Your task to perform on an android device: toggle improve location accuracy Image 0: 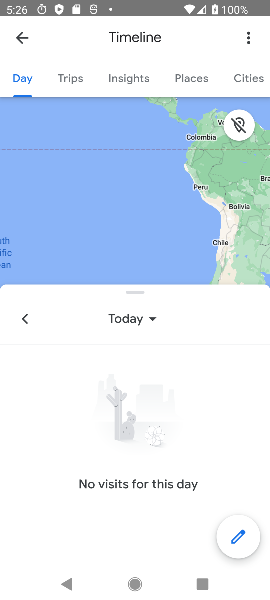
Step 0: click (15, 39)
Your task to perform on an android device: toggle improve location accuracy Image 1: 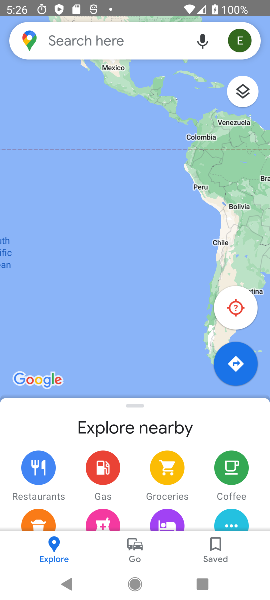
Step 1: press back button
Your task to perform on an android device: toggle improve location accuracy Image 2: 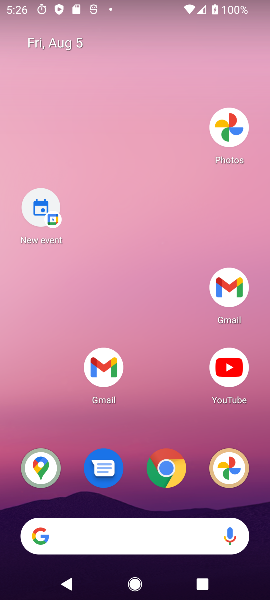
Step 2: drag from (169, 539) to (157, 130)
Your task to perform on an android device: toggle improve location accuracy Image 3: 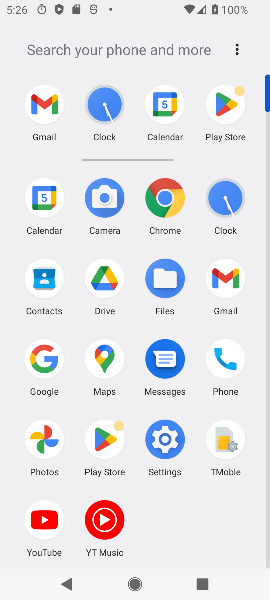
Step 3: drag from (133, 523) to (120, 123)
Your task to perform on an android device: toggle improve location accuracy Image 4: 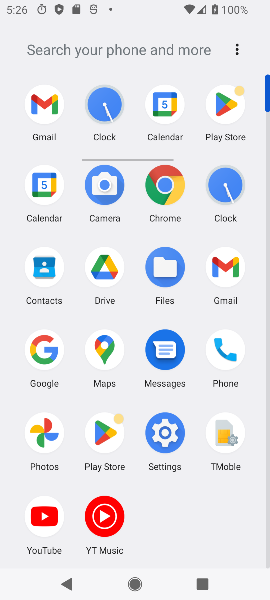
Step 4: click (73, 77)
Your task to perform on an android device: toggle improve location accuracy Image 5: 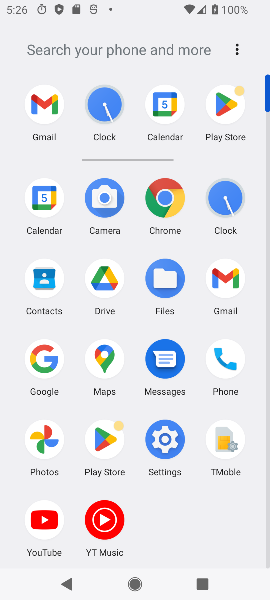
Step 5: click (155, 436)
Your task to perform on an android device: toggle improve location accuracy Image 6: 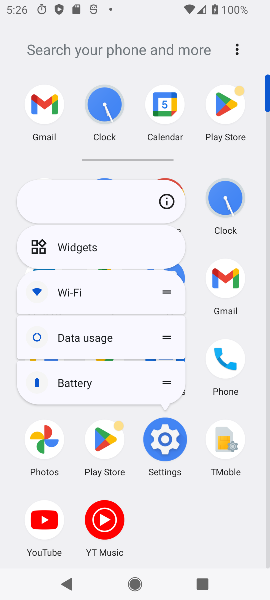
Step 6: click (155, 436)
Your task to perform on an android device: toggle improve location accuracy Image 7: 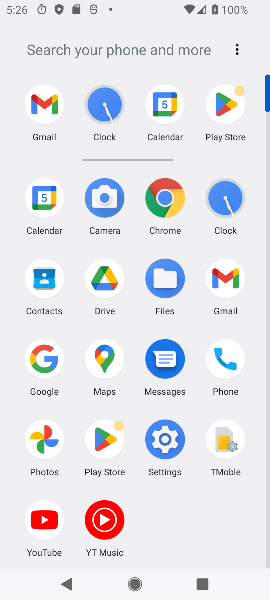
Step 7: click (155, 436)
Your task to perform on an android device: toggle improve location accuracy Image 8: 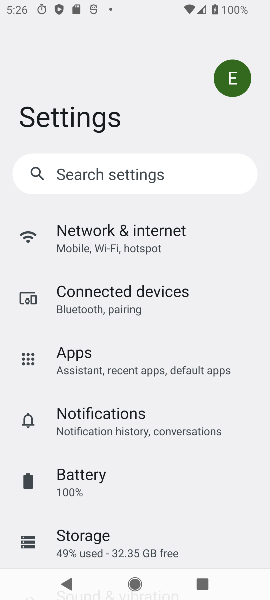
Step 8: click (156, 438)
Your task to perform on an android device: toggle improve location accuracy Image 9: 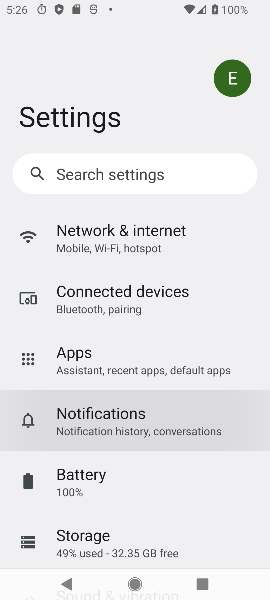
Step 9: click (167, 448)
Your task to perform on an android device: toggle improve location accuracy Image 10: 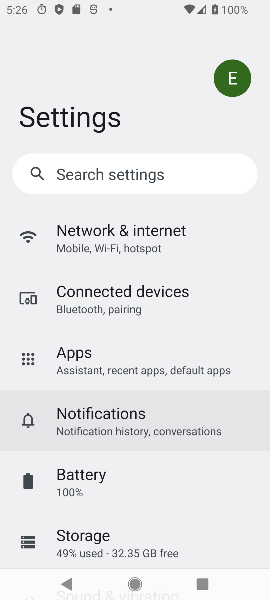
Step 10: click (167, 448)
Your task to perform on an android device: toggle improve location accuracy Image 11: 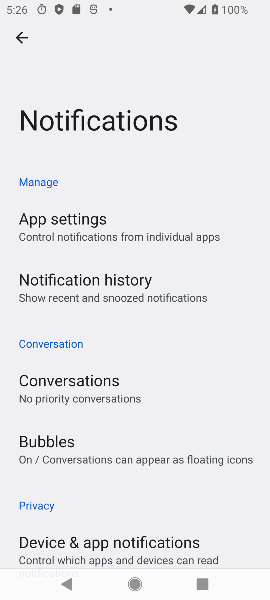
Step 11: click (167, 448)
Your task to perform on an android device: toggle improve location accuracy Image 12: 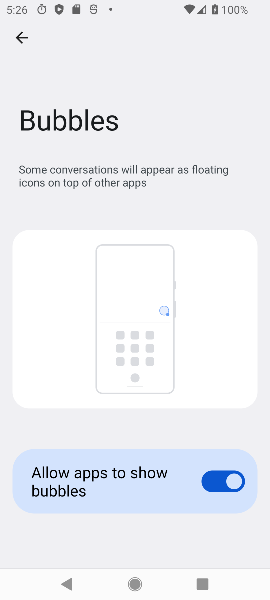
Step 12: drag from (107, 469) to (69, 242)
Your task to perform on an android device: toggle improve location accuracy Image 13: 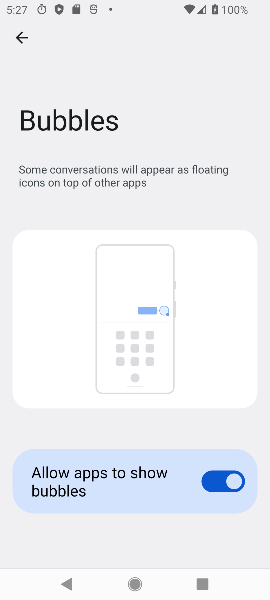
Step 13: click (21, 34)
Your task to perform on an android device: toggle improve location accuracy Image 14: 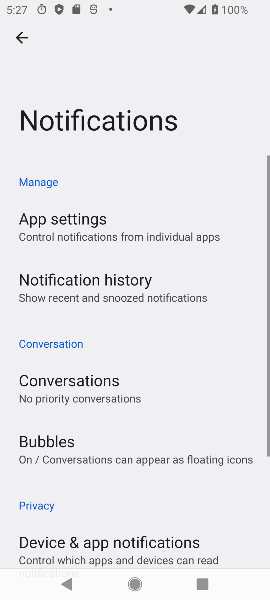
Step 14: drag from (97, 444) to (133, 248)
Your task to perform on an android device: toggle improve location accuracy Image 15: 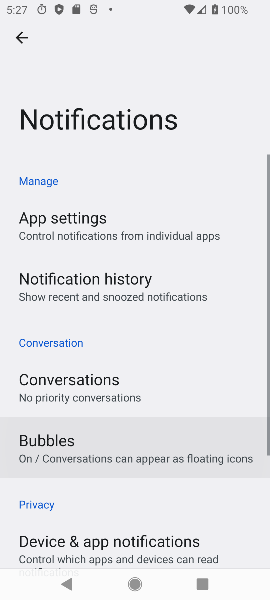
Step 15: drag from (127, 423) to (127, 205)
Your task to perform on an android device: toggle improve location accuracy Image 16: 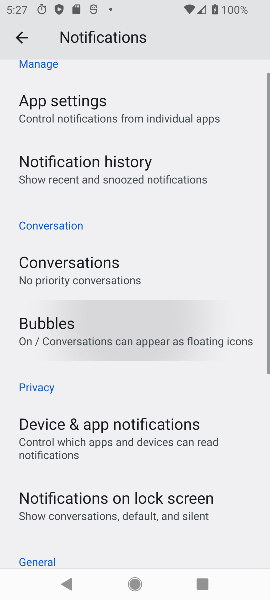
Step 16: drag from (158, 377) to (196, 136)
Your task to perform on an android device: toggle improve location accuracy Image 17: 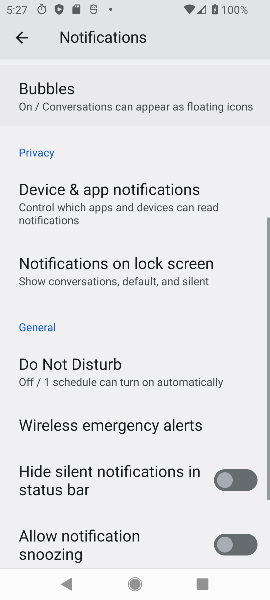
Step 17: drag from (153, 433) to (155, 207)
Your task to perform on an android device: toggle improve location accuracy Image 18: 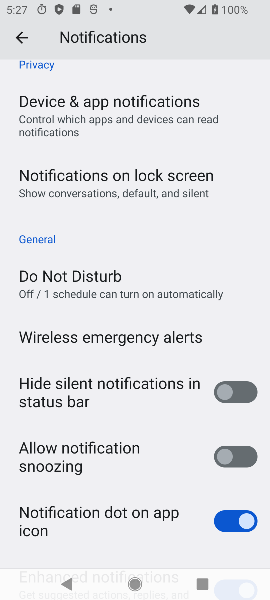
Step 18: drag from (123, 366) to (107, 172)
Your task to perform on an android device: toggle improve location accuracy Image 19: 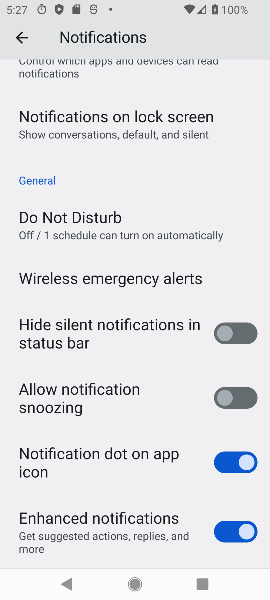
Step 19: drag from (132, 273) to (132, 192)
Your task to perform on an android device: toggle improve location accuracy Image 20: 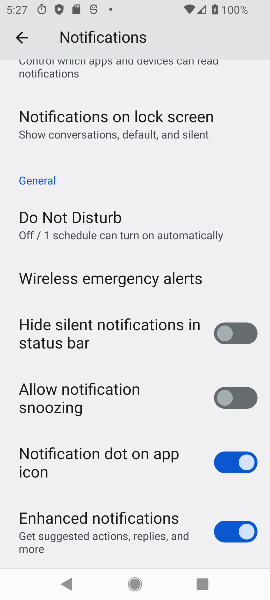
Step 20: drag from (146, 93) to (114, 157)
Your task to perform on an android device: toggle improve location accuracy Image 21: 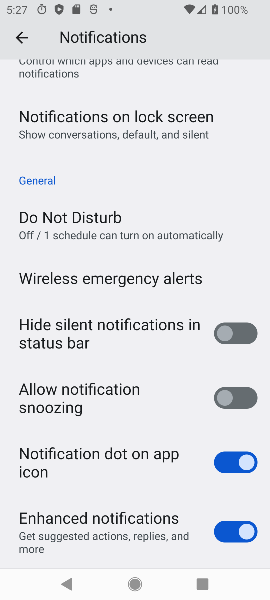
Step 21: drag from (63, 351) to (78, 431)
Your task to perform on an android device: toggle improve location accuracy Image 22: 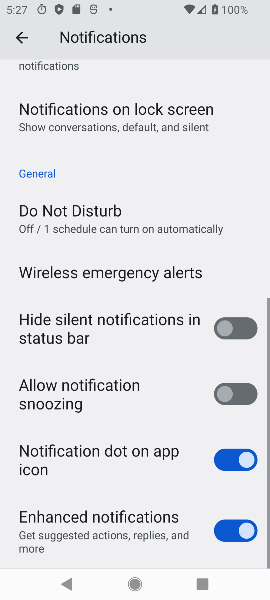
Step 22: drag from (107, 250) to (135, 479)
Your task to perform on an android device: toggle improve location accuracy Image 23: 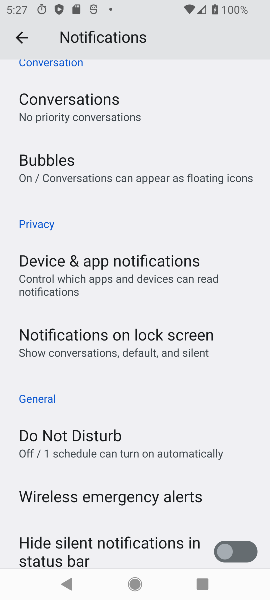
Step 23: drag from (132, 264) to (165, 508)
Your task to perform on an android device: toggle improve location accuracy Image 24: 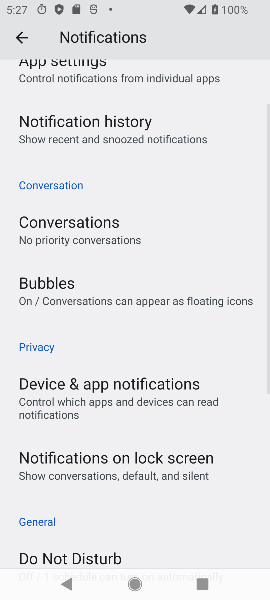
Step 24: drag from (128, 233) to (128, 479)
Your task to perform on an android device: toggle improve location accuracy Image 25: 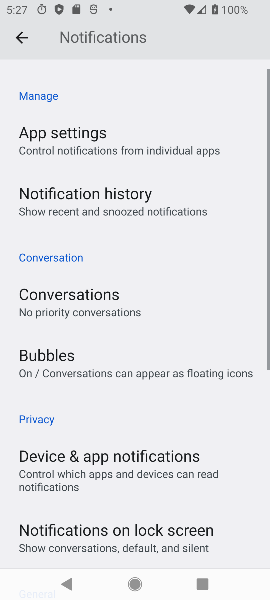
Step 25: drag from (99, 302) to (104, 360)
Your task to perform on an android device: toggle improve location accuracy Image 26: 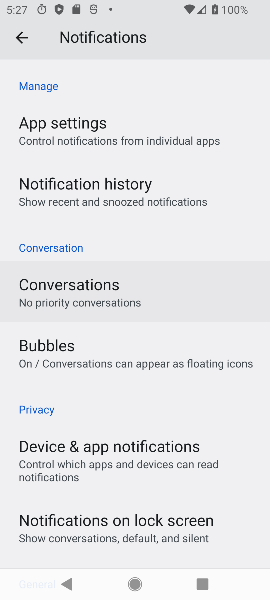
Step 26: drag from (114, 176) to (109, 426)
Your task to perform on an android device: toggle improve location accuracy Image 27: 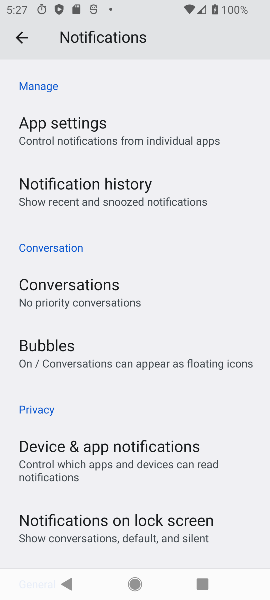
Step 27: click (18, 37)
Your task to perform on an android device: toggle improve location accuracy Image 28: 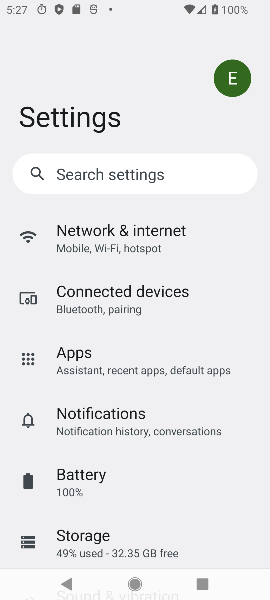
Step 28: drag from (122, 522) to (118, 231)
Your task to perform on an android device: toggle improve location accuracy Image 29: 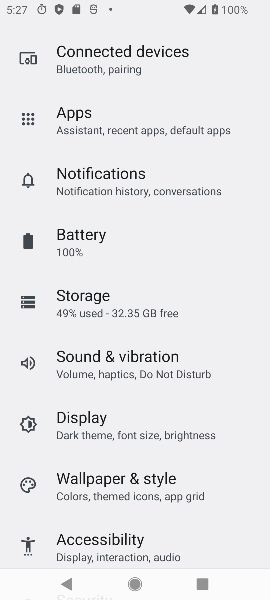
Step 29: drag from (158, 429) to (149, 297)
Your task to perform on an android device: toggle improve location accuracy Image 30: 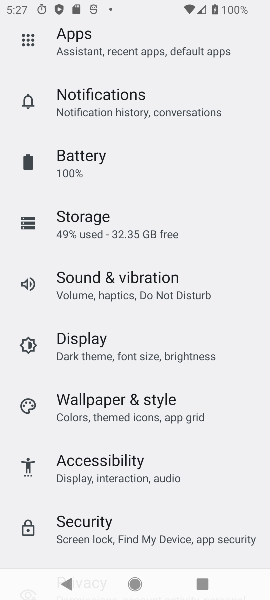
Step 30: drag from (107, 496) to (111, 176)
Your task to perform on an android device: toggle improve location accuracy Image 31: 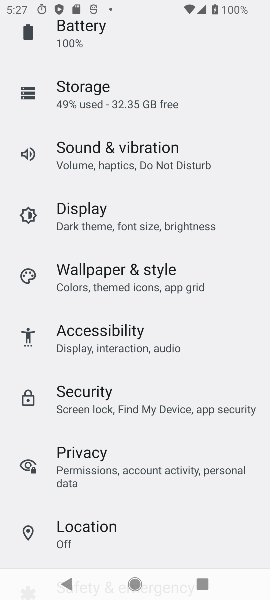
Step 31: drag from (136, 319) to (122, 174)
Your task to perform on an android device: toggle improve location accuracy Image 32: 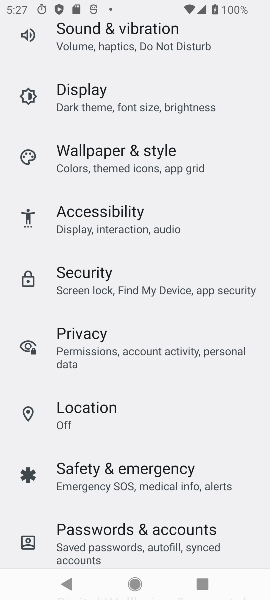
Step 32: click (76, 405)
Your task to perform on an android device: toggle improve location accuracy Image 33: 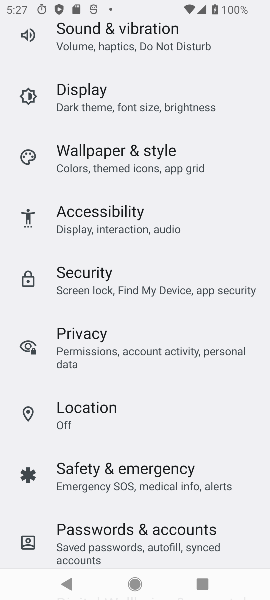
Step 33: click (76, 405)
Your task to perform on an android device: toggle improve location accuracy Image 34: 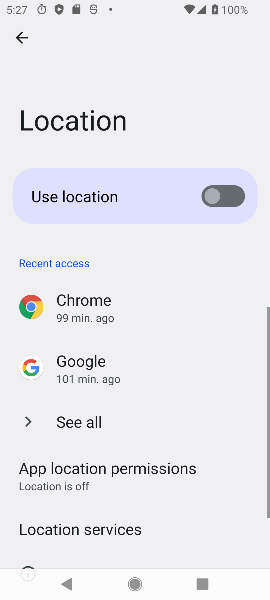
Step 34: click (79, 410)
Your task to perform on an android device: toggle improve location accuracy Image 35: 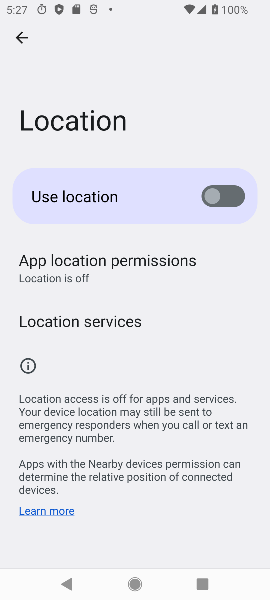
Step 35: click (68, 318)
Your task to perform on an android device: toggle improve location accuracy Image 36: 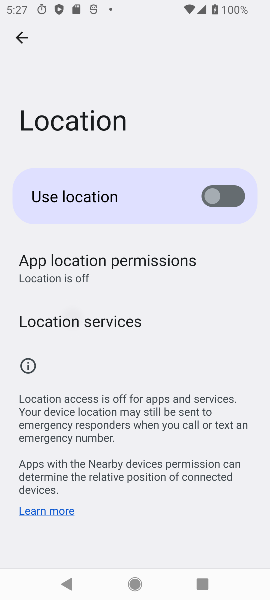
Step 36: click (68, 318)
Your task to perform on an android device: toggle improve location accuracy Image 37: 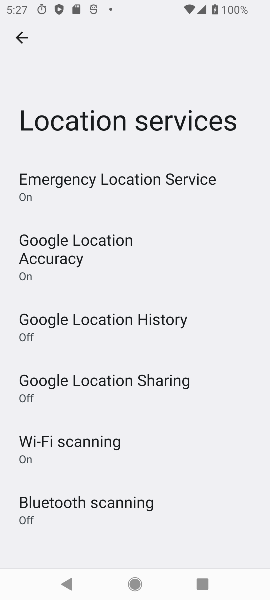
Step 37: click (69, 243)
Your task to perform on an android device: toggle improve location accuracy Image 38: 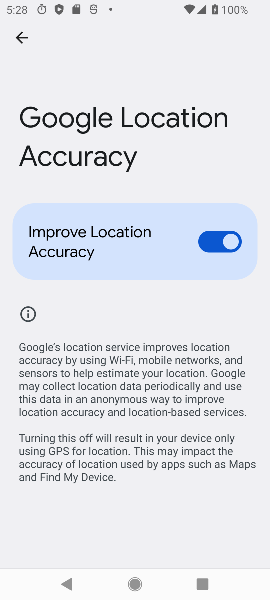
Step 38: click (229, 243)
Your task to perform on an android device: toggle improve location accuracy Image 39: 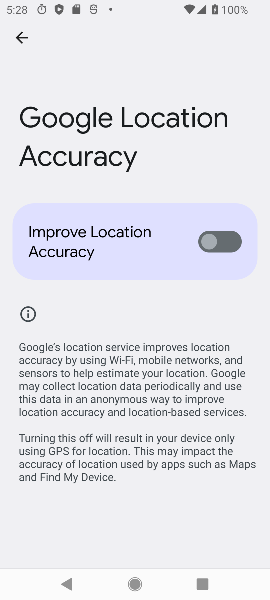
Step 39: task complete